Your task to perform on an android device: check battery use Image 0: 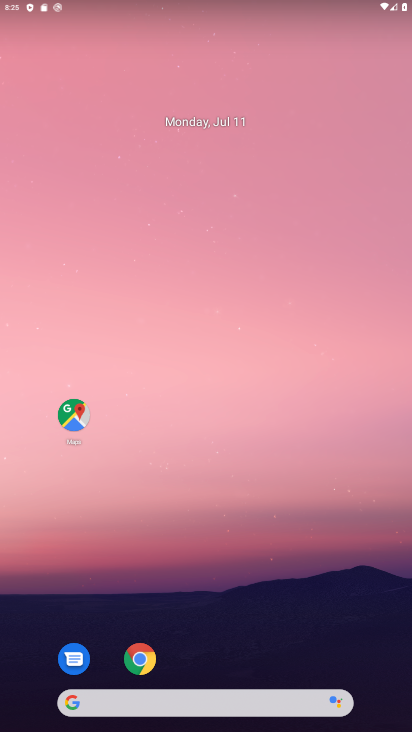
Step 0: click (3, 694)
Your task to perform on an android device: check battery use Image 1: 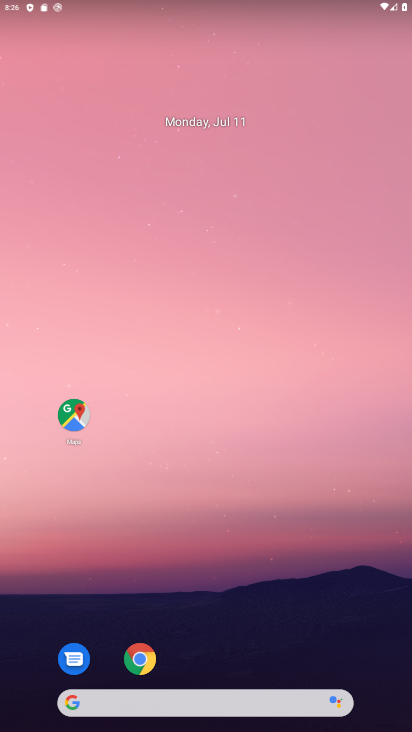
Step 1: drag from (35, 703) to (219, 198)
Your task to perform on an android device: check battery use Image 2: 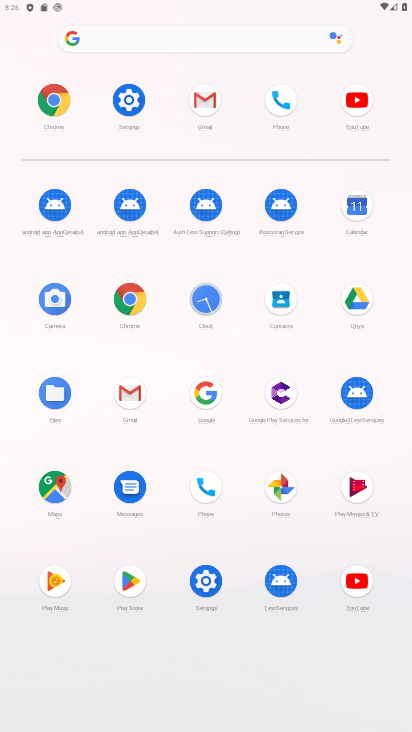
Step 2: click (197, 595)
Your task to perform on an android device: check battery use Image 3: 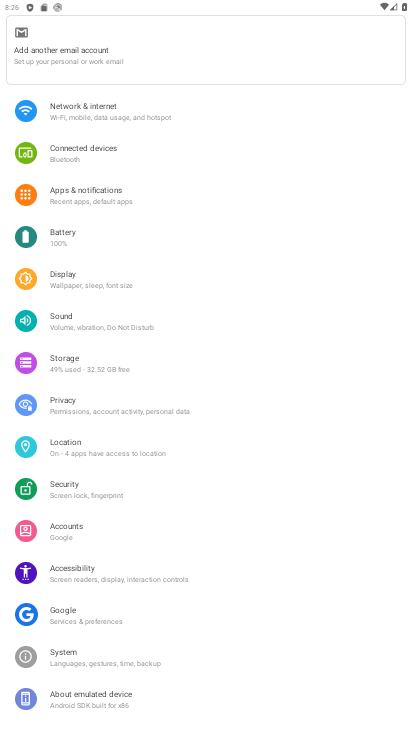
Step 3: click (89, 225)
Your task to perform on an android device: check battery use Image 4: 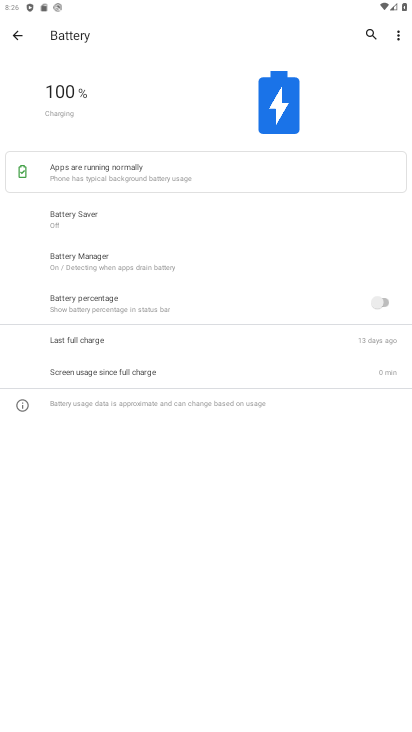
Step 4: task complete